Your task to perform on an android device: Open Google Maps Image 0: 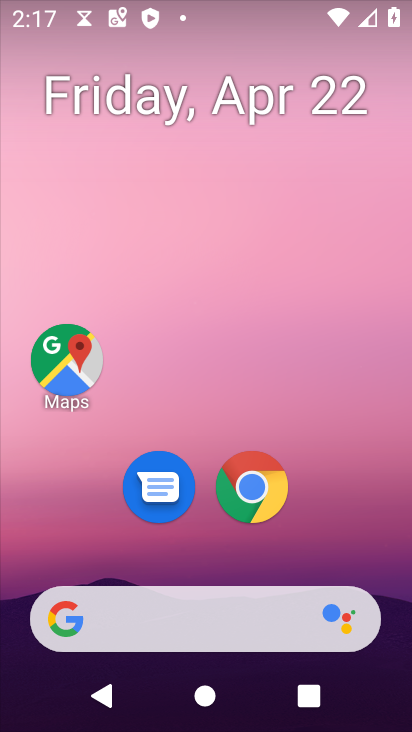
Step 0: drag from (145, 618) to (272, 140)
Your task to perform on an android device: Open Google Maps Image 1: 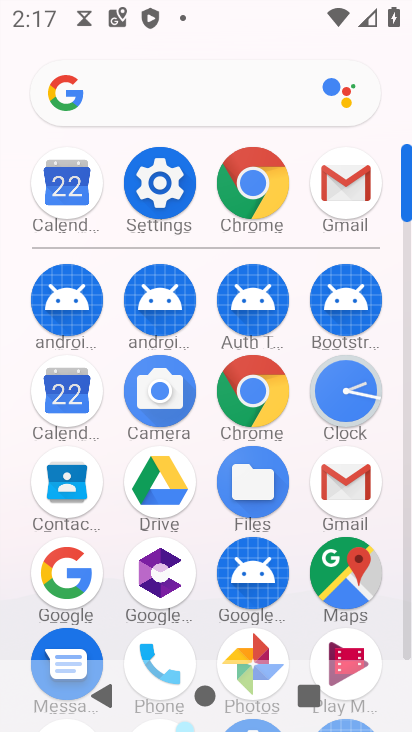
Step 1: click (344, 596)
Your task to perform on an android device: Open Google Maps Image 2: 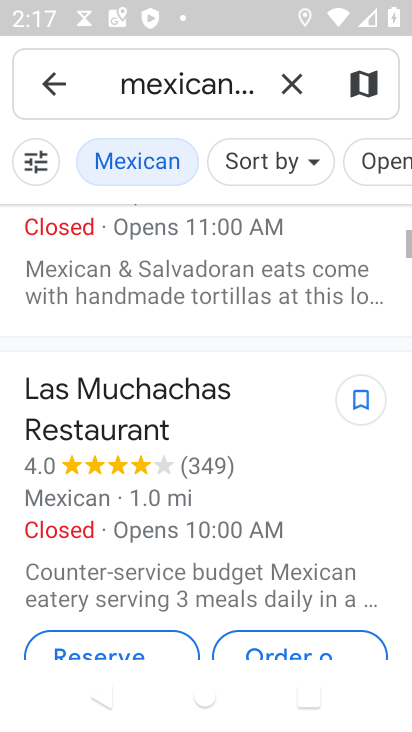
Step 2: click (54, 86)
Your task to perform on an android device: Open Google Maps Image 3: 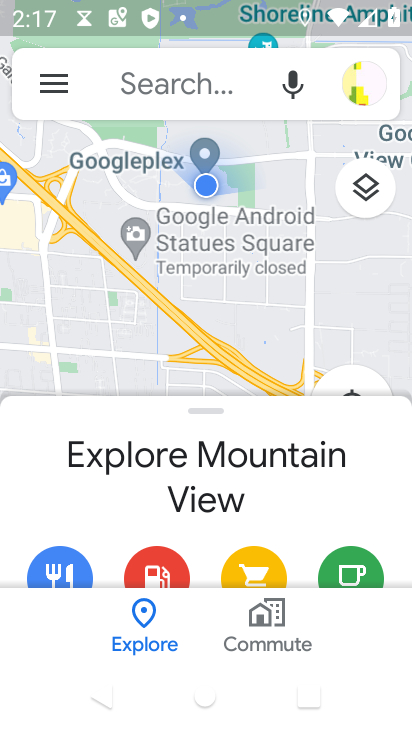
Step 3: task complete